Your task to perform on an android device: change alarm snooze length Image 0: 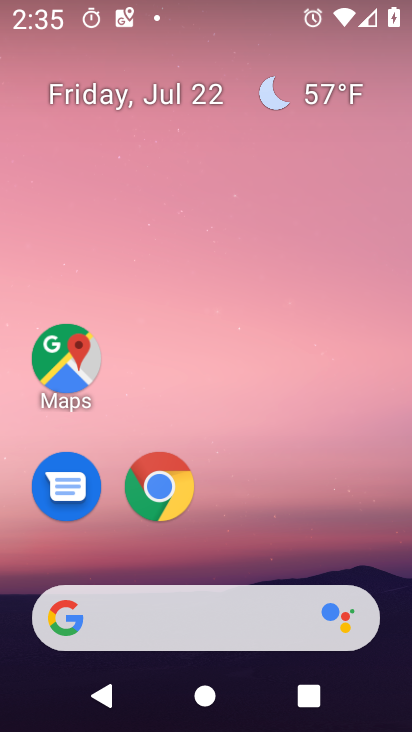
Step 0: press home button
Your task to perform on an android device: change alarm snooze length Image 1: 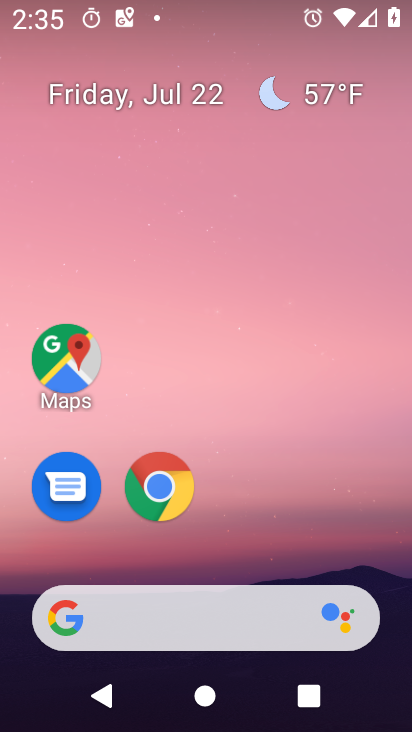
Step 1: drag from (374, 547) to (380, 128)
Your task to perform on an android device: change alarm snooze length Image 2: 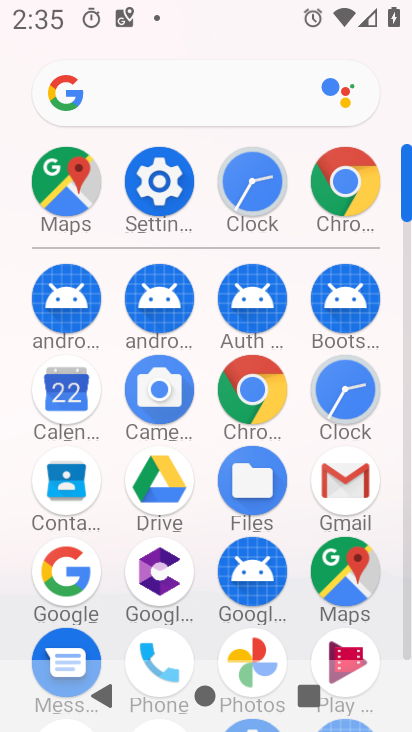
Step 2: click (260, 189)
Your task to perform on an android device: change alarm snooze length Image 3: 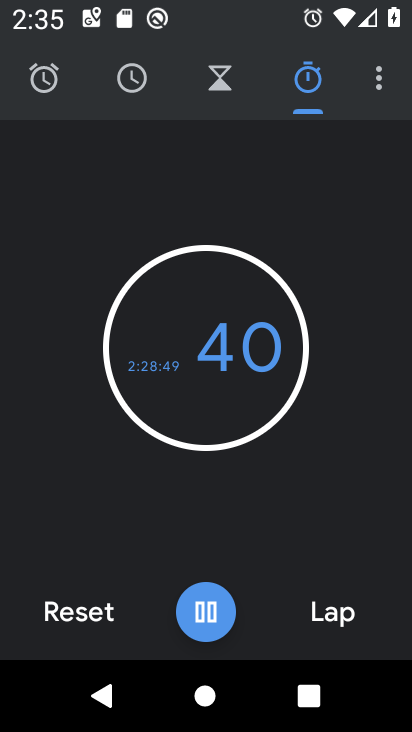
Step 3: click (380, 84)
Your task to perform on an android device: change alarm snooze length Image 4: 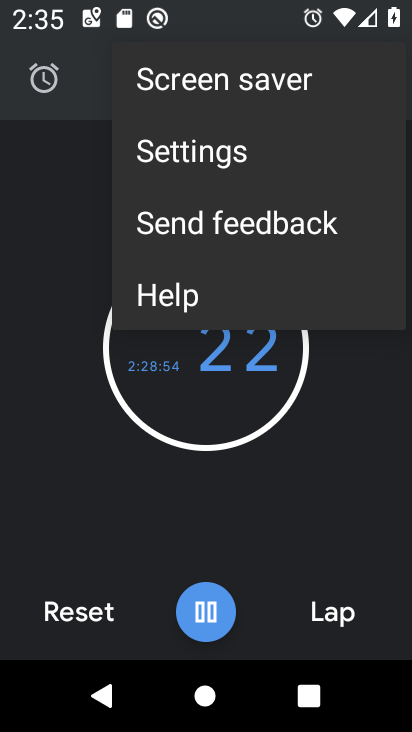
Step 4: click (305, 153)
Your task to perform on an android device: change alarm snooze length Image 5: 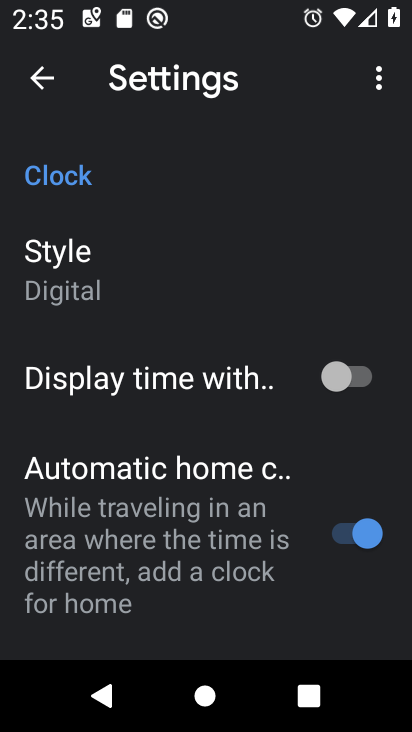
Step 5: drag from (280, 293) to (286, 225)
Your task to perform on an android device: change alarm snooze length Image 6: 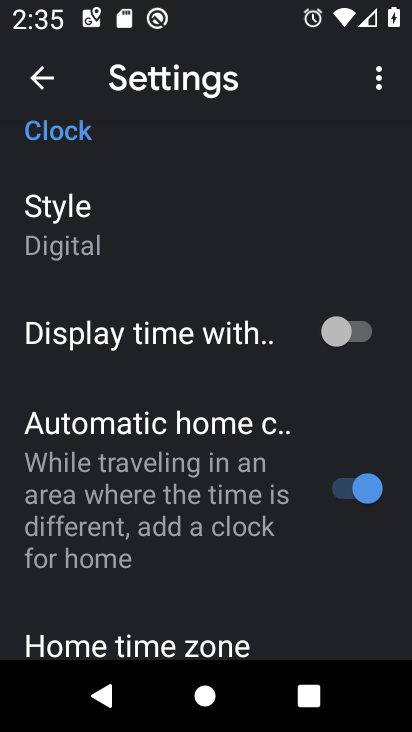
Step 6: drag from (294, 412) to (298, 343)
Your task to perform on an android device: change alarm snooze length Image 7: 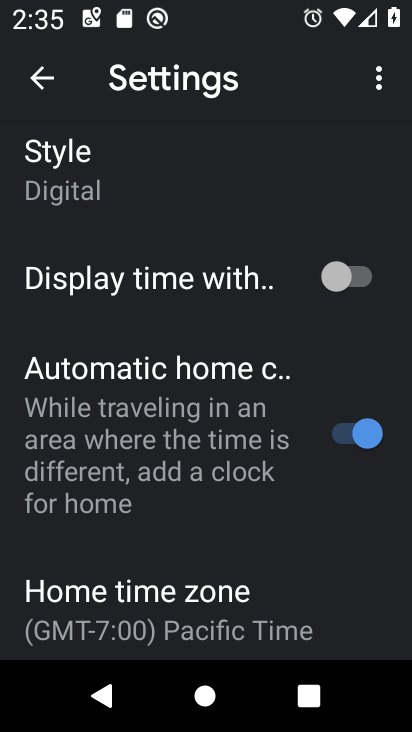
Step 7: drag from (296, 458) to (299, 397)
Your task to perform on an android device: change alarm snooze length Image 8: 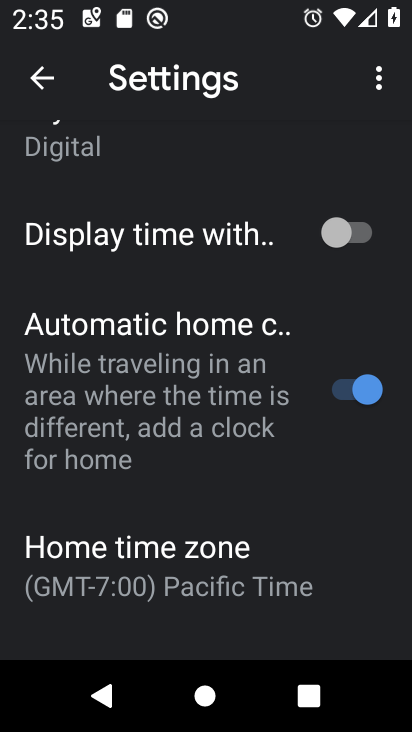
Step 8: drag from (298, 476) to (296, 406)
Your task to perform on an android device: change alarm snooze length Image 9: 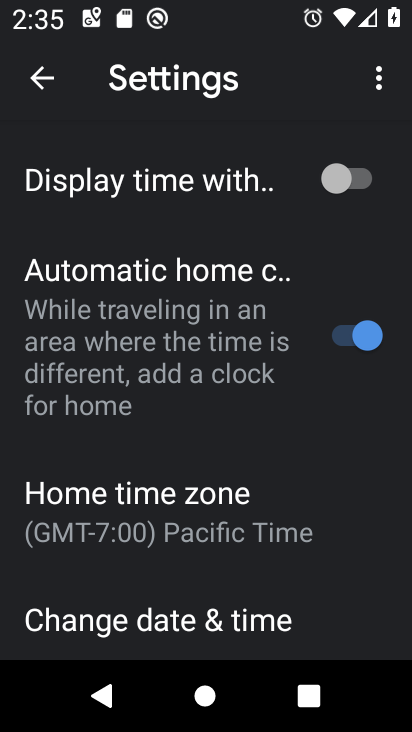
Step 9: drag from (295, 488) to (290, 432)
Your task to perform on an android device: change alarm snooze length Image 10: 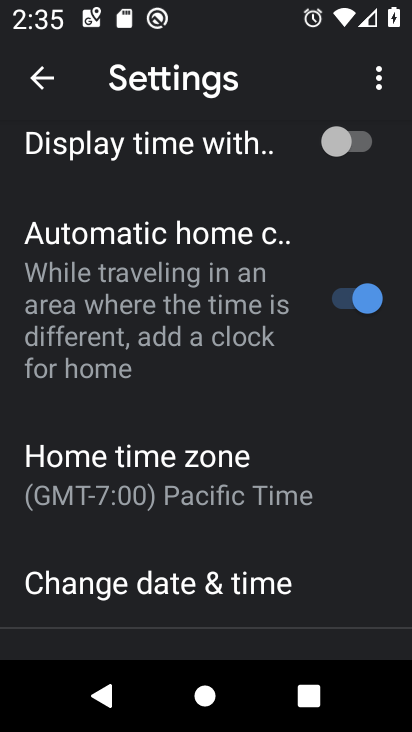
Step 10: drag from (292, 515) to (295, 437)
Your task to perform on an android device: change alarm snooze length Image 11: 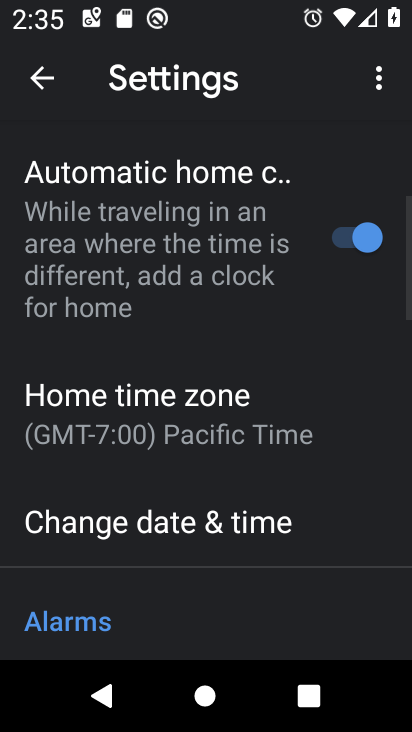
Step 11: drag from (308, 507) to (310, 430)
Your task to perform on an android device: change alarm snooze length Image 12: 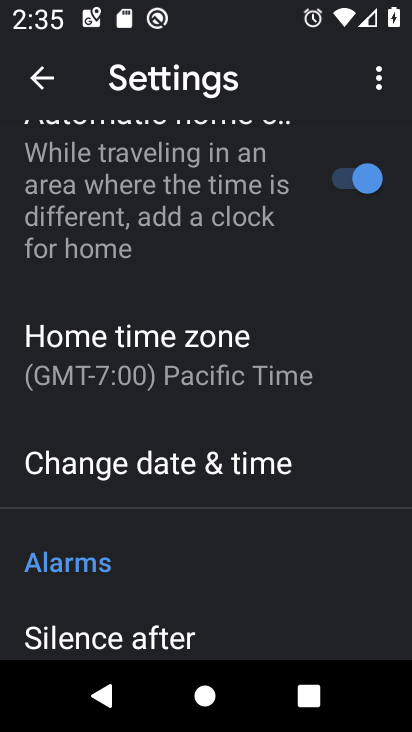
Step 12: drag from (320, 506) to (324, 439)
Your task to perform on an android device: change alarm snooze length Image 13: 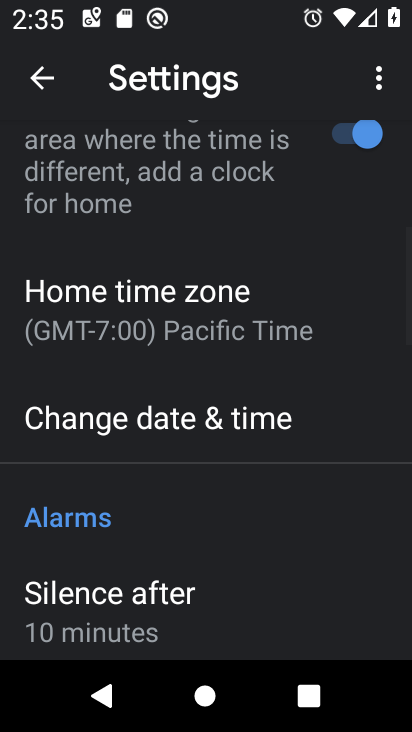
Step 13: drag from (324, 514) to (323, 443)
Your task to perform on an android device: change alarm snooze length Image 14: 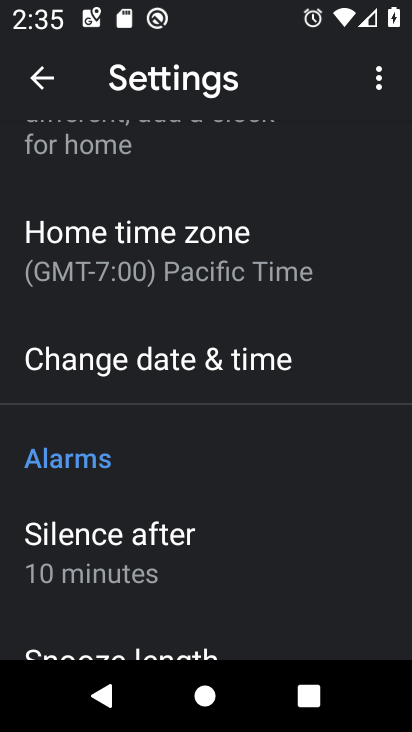
Step 14: drag from (315, 531) to (322, 418)
Your task to perform on an android device: change alarm snooze length Image 15: 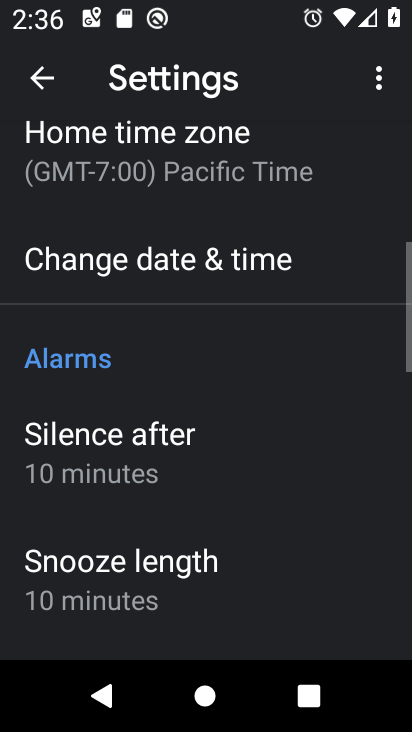
Step 15: drag from (302, 503) to (308, 351)
Your task to perform on an android device: change alarm snooze length Image 16: 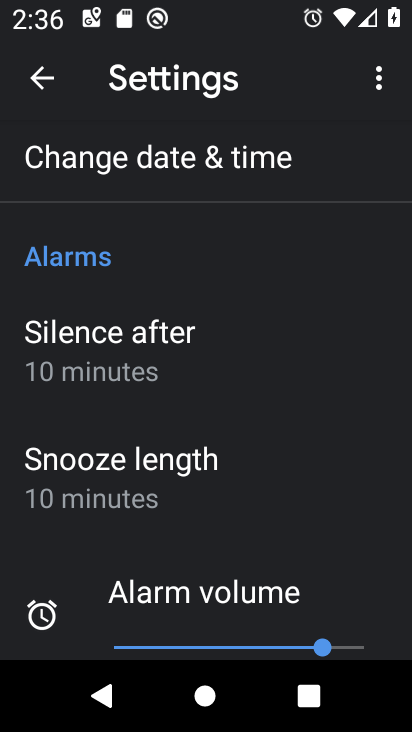
Step 16: click (279, 475)
Your task to perform on an android device: change alarm snooze length Image 17: 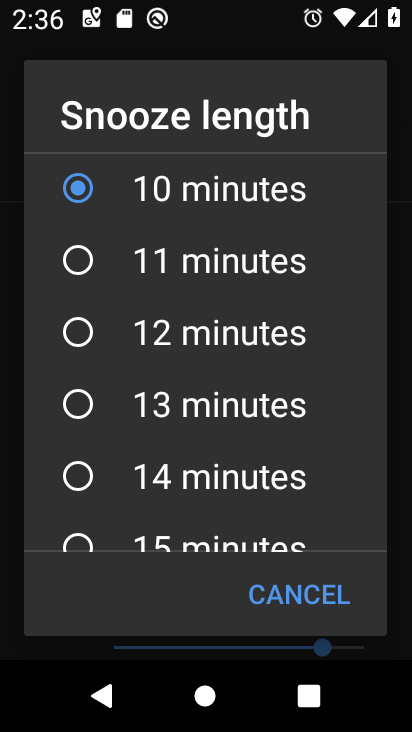
Step 17: click (258, 480)
Your task to perform on an android device: change alarm snooze length Image 18: 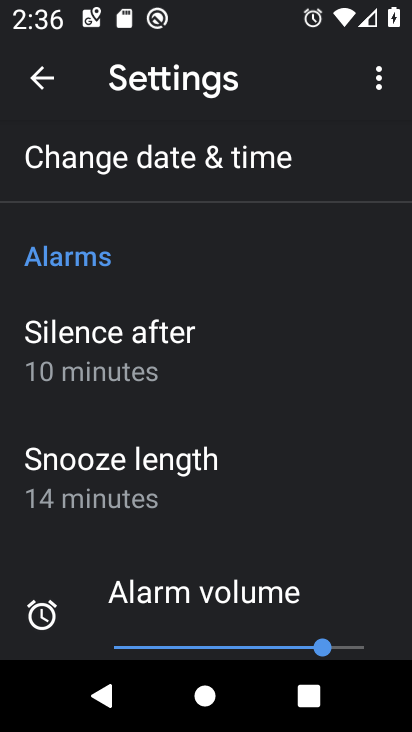
Step 18: task complete